Your task to perform on an android device: Open settings on Google Maps Image 0: 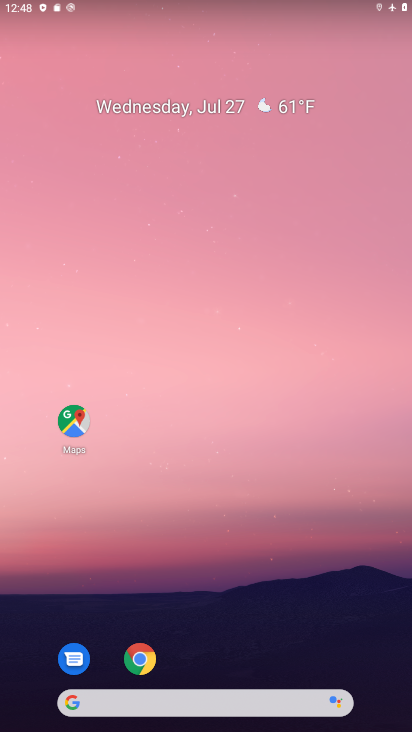
Step 0: click (65, 402)
Your task to perform on an android device: Open settings on Google Maps Image 1: 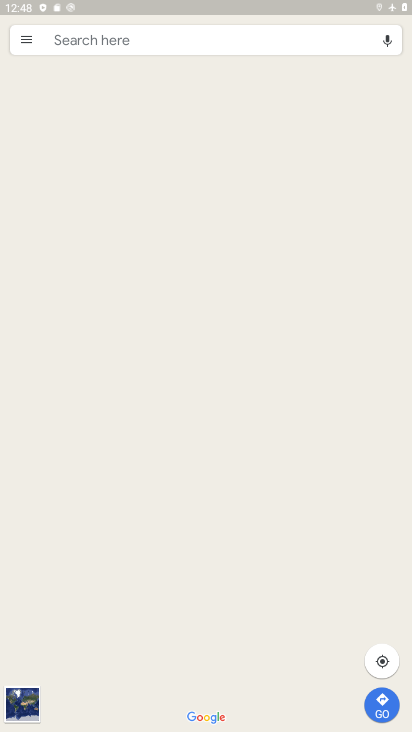
Step 1: click (37, 44)
Your task to perform on an android device: Open settings on Google Maps Image 2: 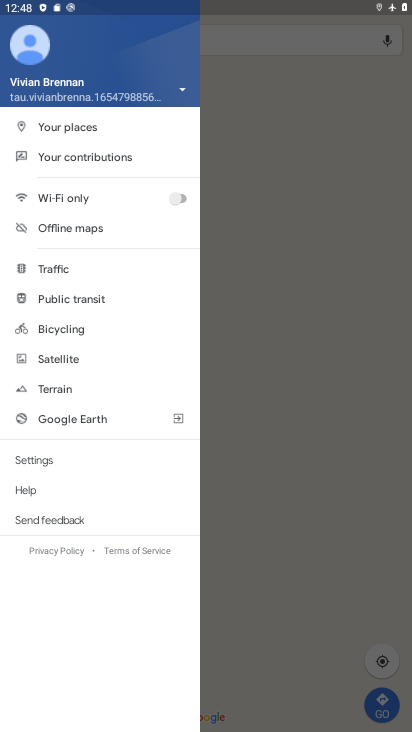
Step 2: click (37, 458)
Your task to perform on an android device: Open settings on Google Maps Image 3: 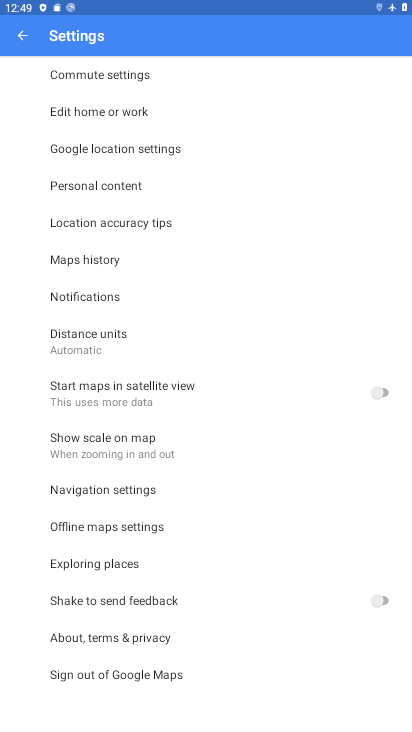
Step 3: task complete